Your task to perform on an android device: Open Google Maps and go to "Timeline" Image 0: 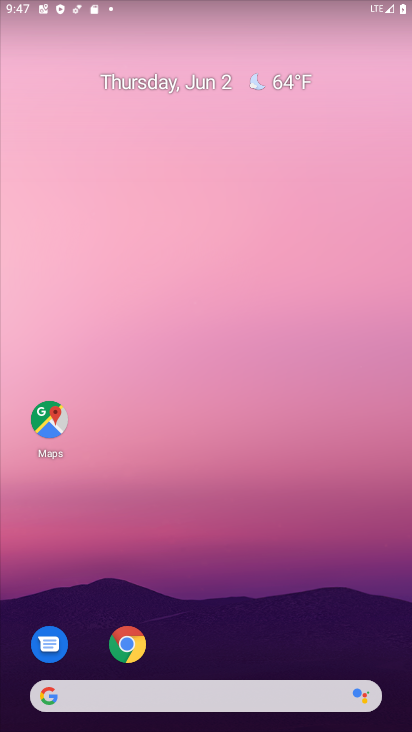
Step 0: click (51, 421)
Your task to perform on an android device: Open Google Maps and go to "Timeline" Image 1: 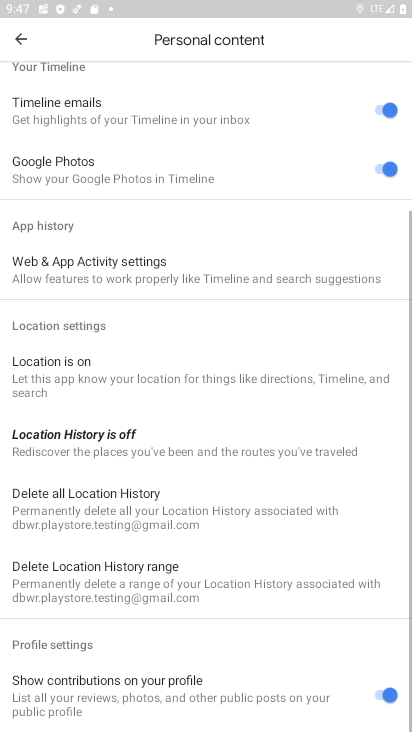
Step 1: click (27, 35)
Your task to perform on an android device: Open Google Maps and go to "Timeline" Image 2: 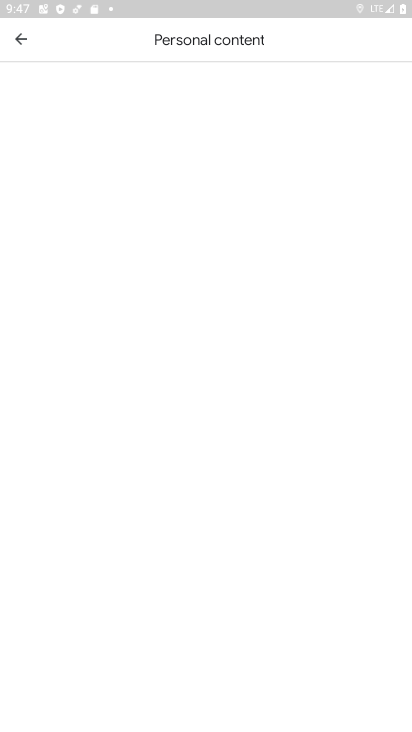
Step 2: click (27, 35)
Your task to perform on an android device: Open Google Maps and go to "Timeline" Image 3: 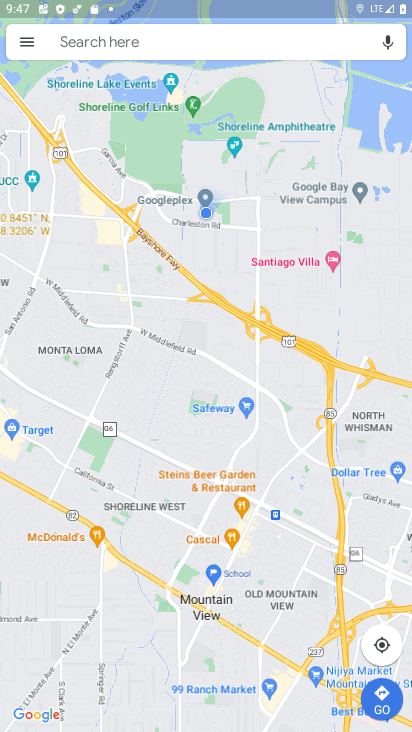
Step 3: click (14, 35)
Your task to perform on an android device: Open Google Maps and go to "Timeline" Image 4: 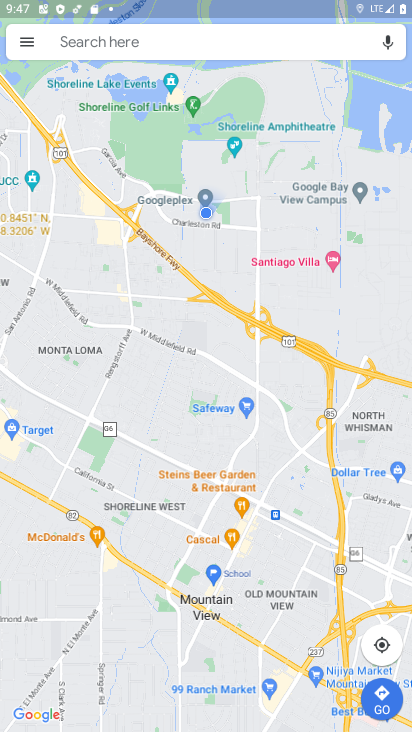
Step 4: click (24, 44)
Your task to perform on an android device: Open Google Maps and go to "Timeline" Image 5: 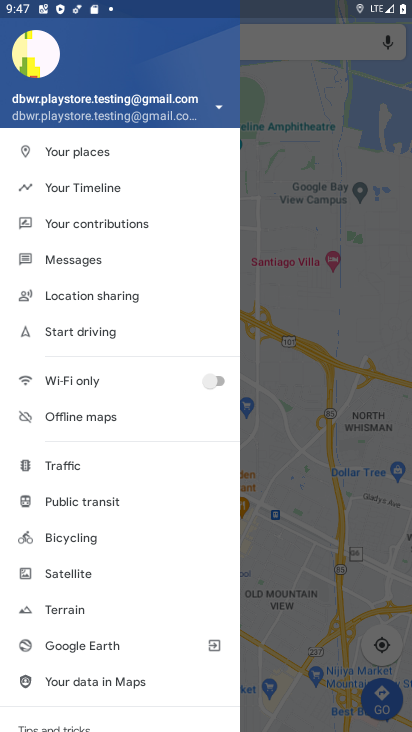
Step 5: click (74, 194)
Your task to perform on an android device: Open Google Maps and go to "Timeline" Image 6: 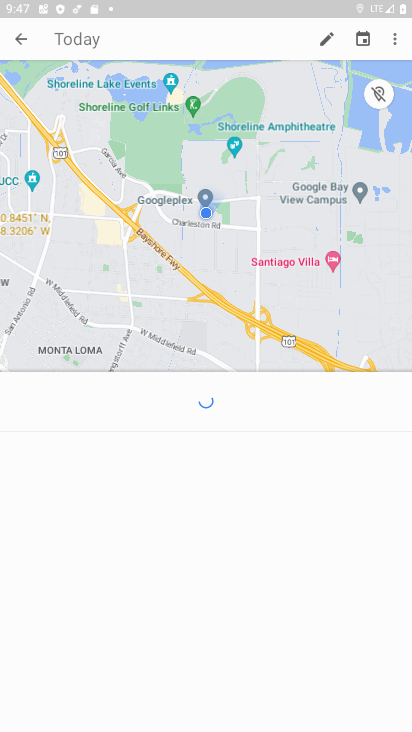
Step 6: task complete